Your task to perform on an android device: turn off javascript in the chrome app Image 0: 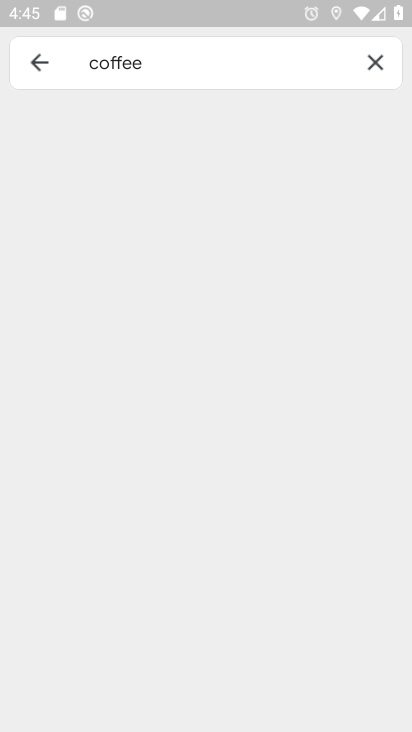
Step 0: press home button
Your task to perform on an android device: turn off javascript in the chrome app Image 1: 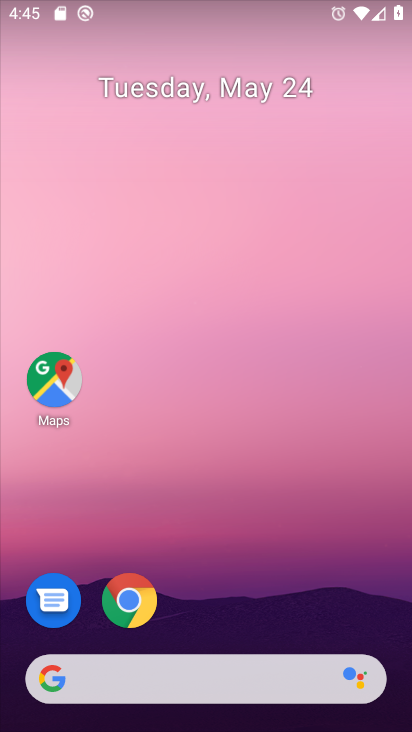
Step 1: drag from (352, 666) to (299, 0)
Your task to perform on an android device: turn off javascript in the chrome app Image 2: 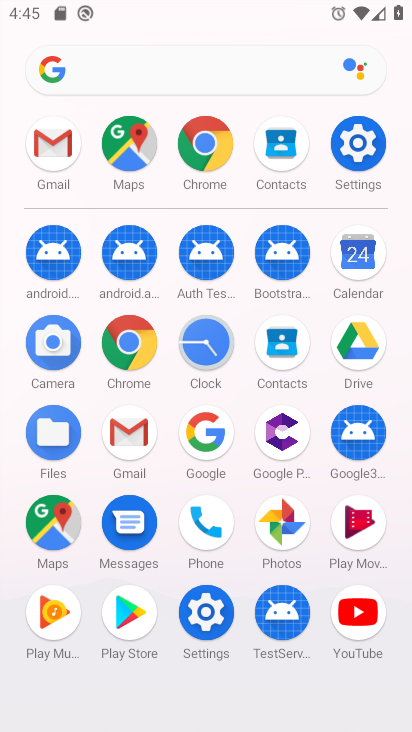
Step 2: click (132, 332)
Your task to perform on an android device: turn off javascript in the chrome app Image 3: 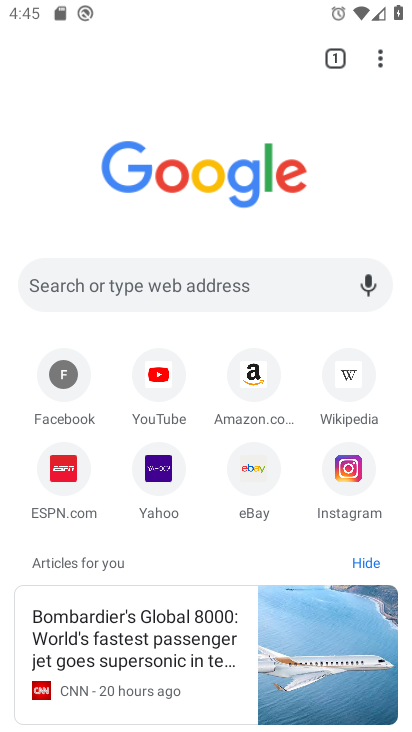
Step 3: drag from (380, 53) to (167, 490)
Your task to perform on an android device: turn off javascript in the chrome app Image 4: 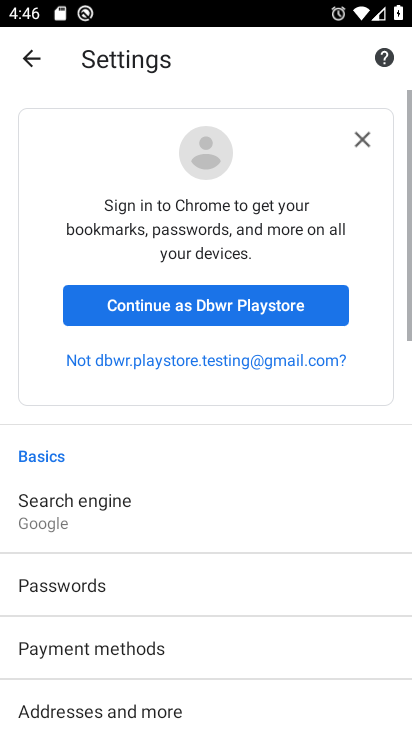
Step 4: drag from (166, 612) to (228, 44)
Your task to perform on an android device: turn off javascript in the chrome app Image 5: 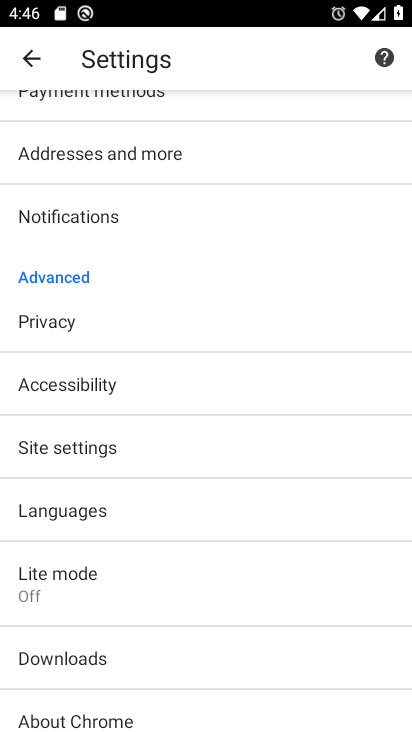
Step 5: click (103, 455)
Your task to perform on an android device: turn off javascript in the chrome app Image 6: 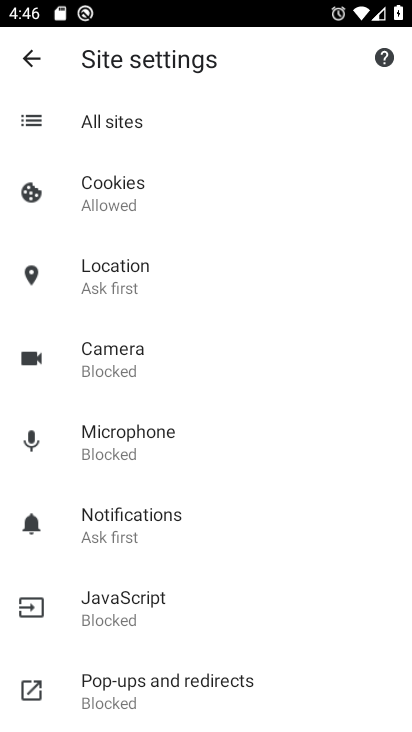
Step 6: click (145, 617)
Your task to perform on an android device: turn off javascript in the chrome app Image 7: 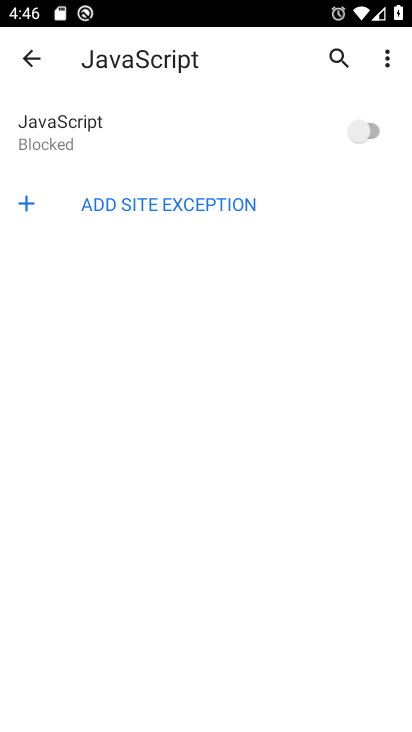
Step 7: task complete